Your task to perform on an android device: add a contact Image 0: 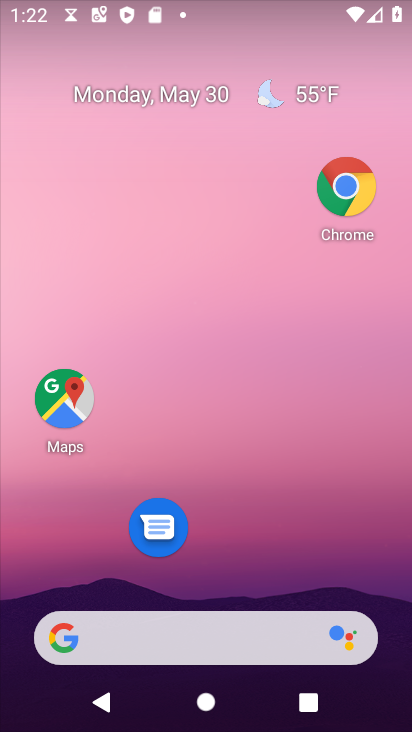
Step 0: click (217, 191)
Your task to perform on an android device: add a contact Image 1: 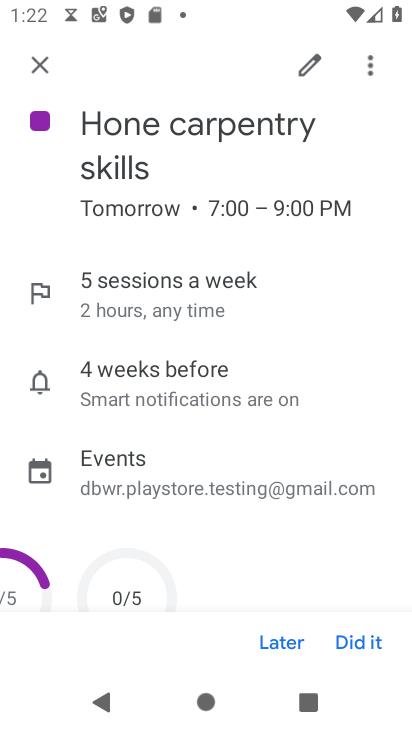
Step 1: drag from (228, 564) to (249, 361)
Your task to perform on an android device: add a contact Image 2: 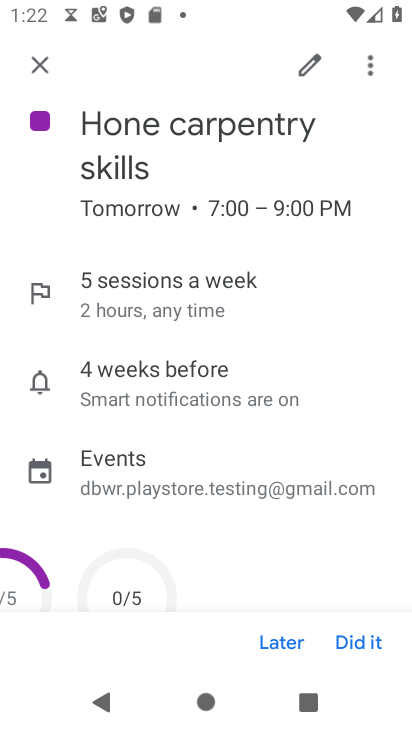
Step 2: drag from (242, 536) to (247, 322)
Your task to perform on an android device: add a contact Image 3: 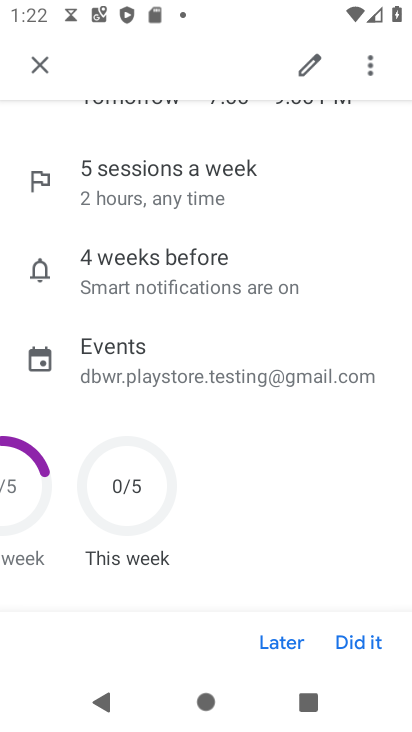
Step 3: drag from (284, 561) to (285, 336)
Your task to perform on an android device: add a contact Image 4: 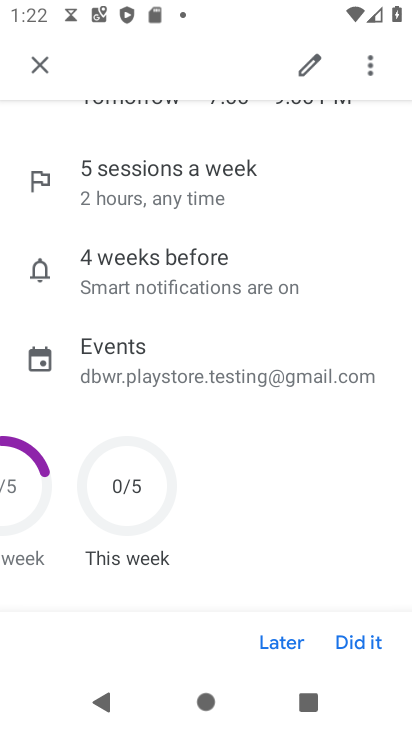
Step 4: drag from (128, 166) to (225, 482)
Your task to perform on an android device: add a contact Image 5: 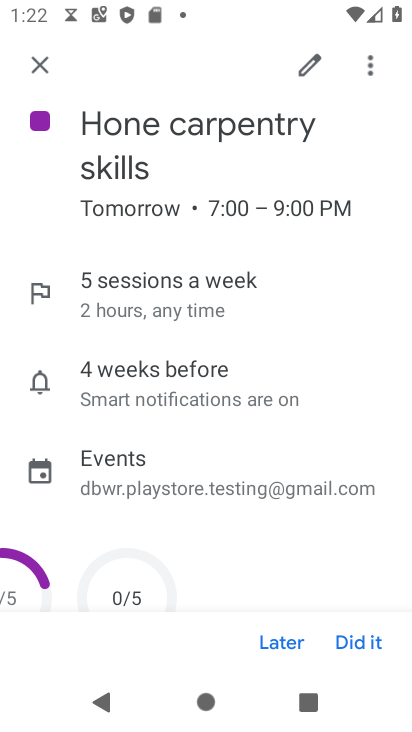
Step 5: click (43, 68)
Your task to perform on an android device: add a contact Image 6: 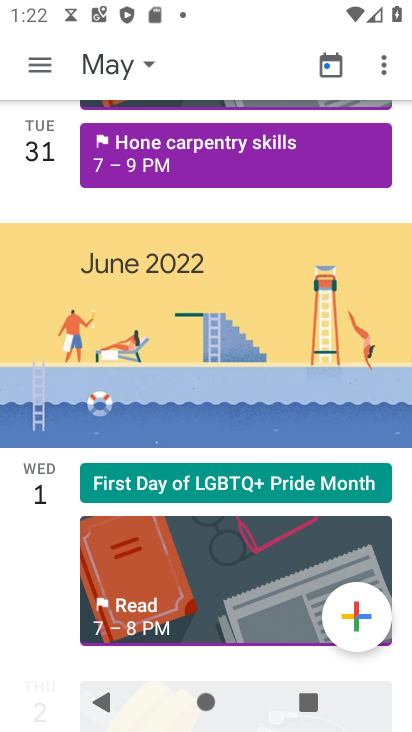
Step 6: drag from (292, 381) to (294, 331)
Your task to perform on an android device: add a contact Image 7: 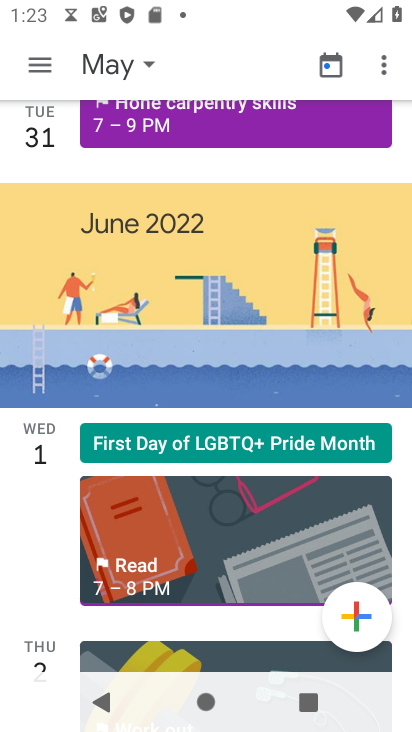
Step 7: press home button
Your task to perform on an android device: add a contact Image 8: 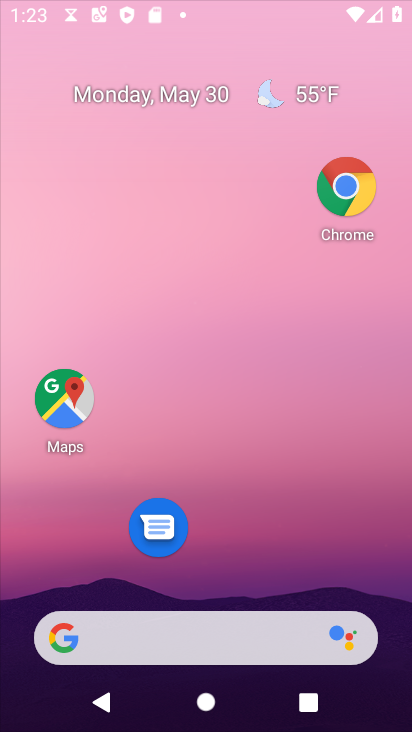
Step 8: drag from (193, 545) to (259, 74)
Your task to perform on an android device: add a contact Image 9: 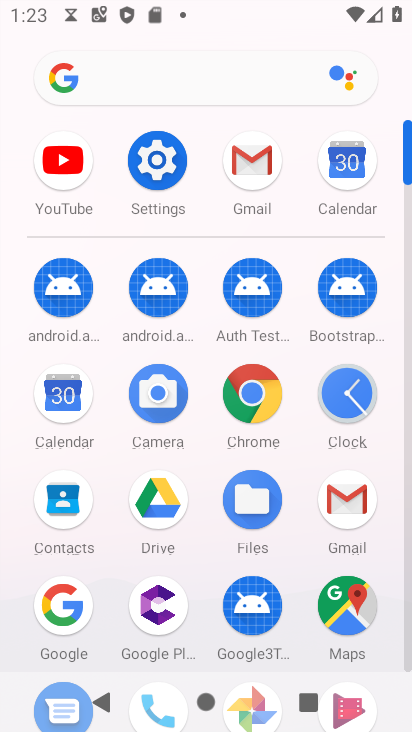
Step 9: click (75, 517)
Your task to perform on an android device: add a contact Image 10: 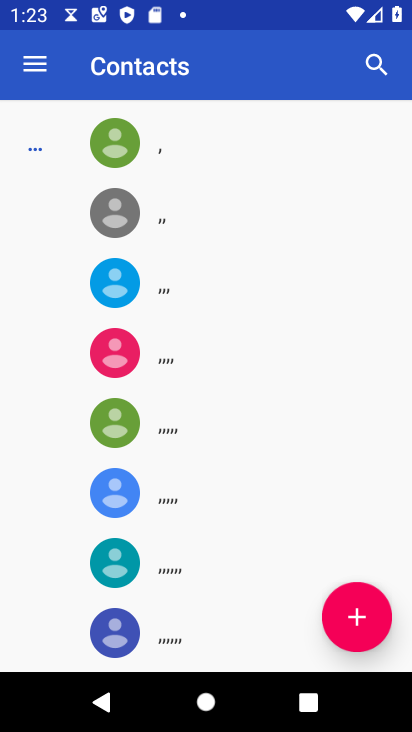
Step 10: click (348, 642)
Your task to perform on an android device: add a contact Image 11: 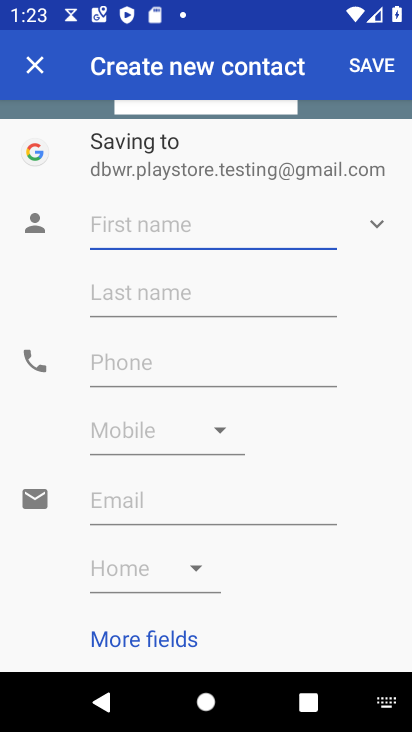
Step 11: click (159, 214)
Your task to perform on an android device: add a contact Image 12: 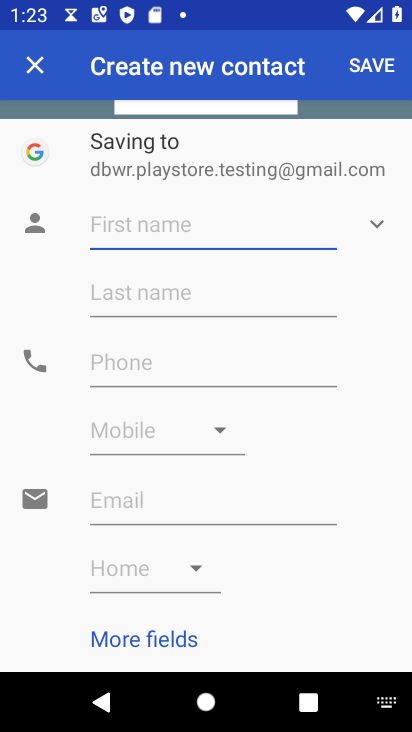
Step 12: type "mnjbk"
Your task to perform on an android device: add a contact Image 13: 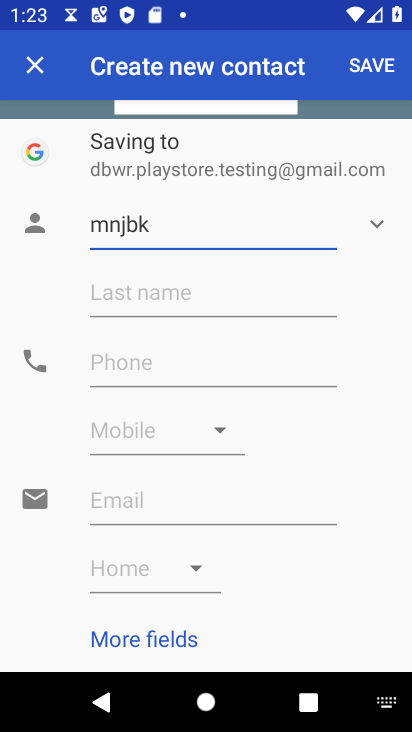
Step 13: drag from (224, 473) to (300, 272)
Your task to perform on an android device: add a contact Image 14: 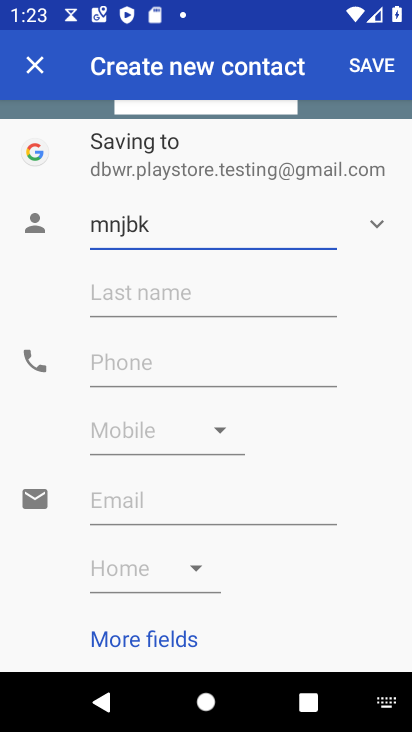
Step 14: click (374, 80)
Your task to perform on an android device: add a contact Image 15: 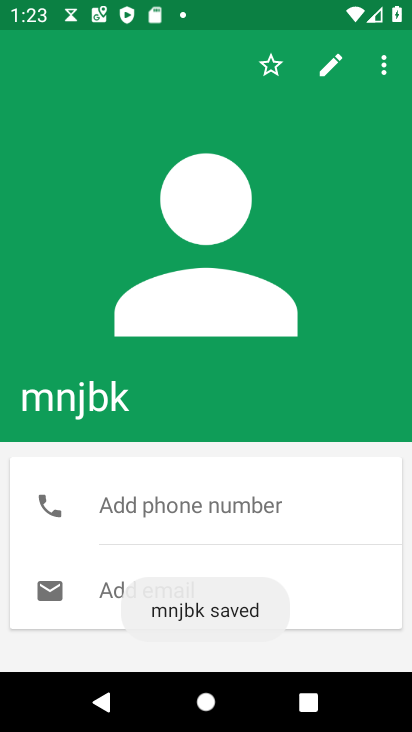
Step 15: task complete